Your task to perform on an android device: Go to settings Image 0: 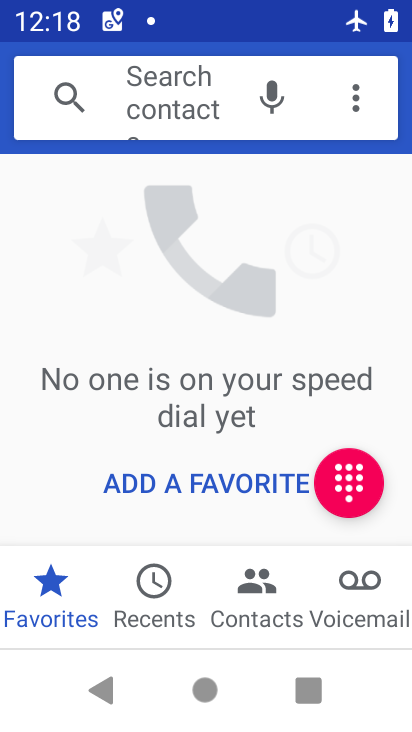
Step 0: press home button
Your task to perform on an android device: Go to settings Image 1: 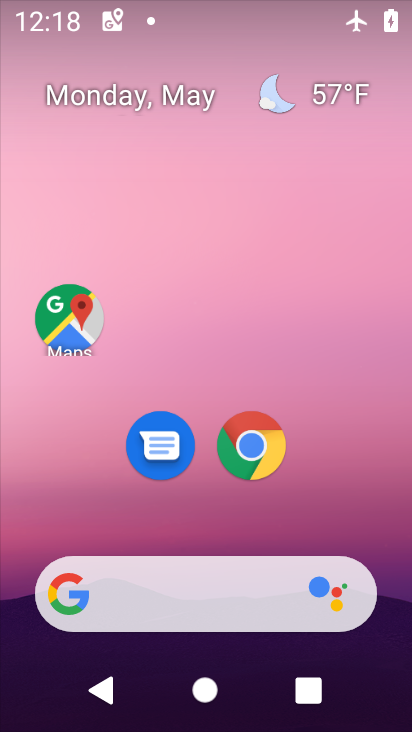
Step 1: drag from (323, 412) to (256, 148)
Your task to perform on an android device: Go to settings Image 2: 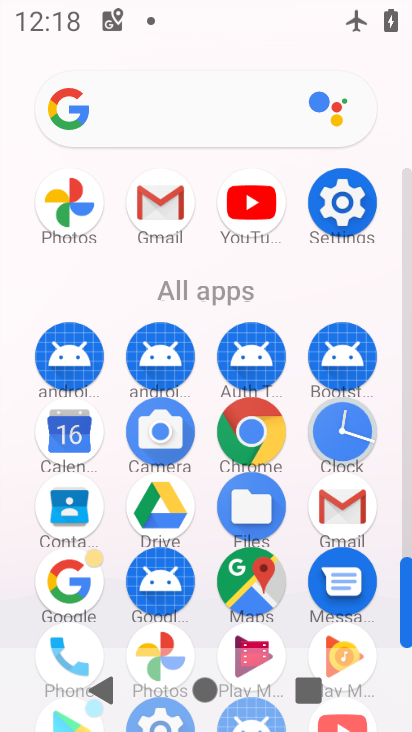
Step 2: click (333, 217)
Your task to perform on an android device: Go to settings Image 3: 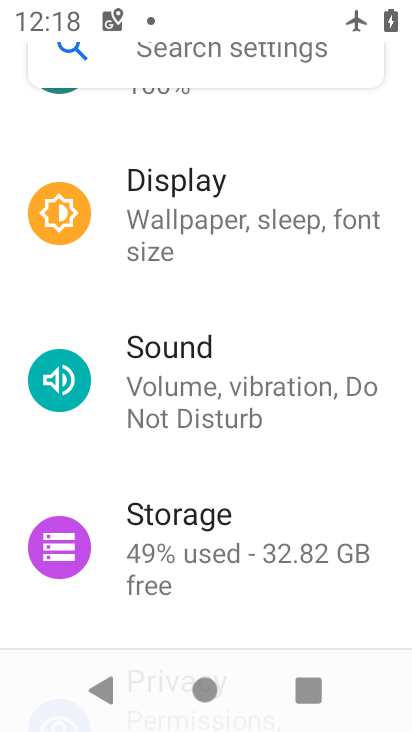
Step 3: task complete